Your task to perform on an android device: install app "TextNow: Call + Text Unlimited" Image 0: 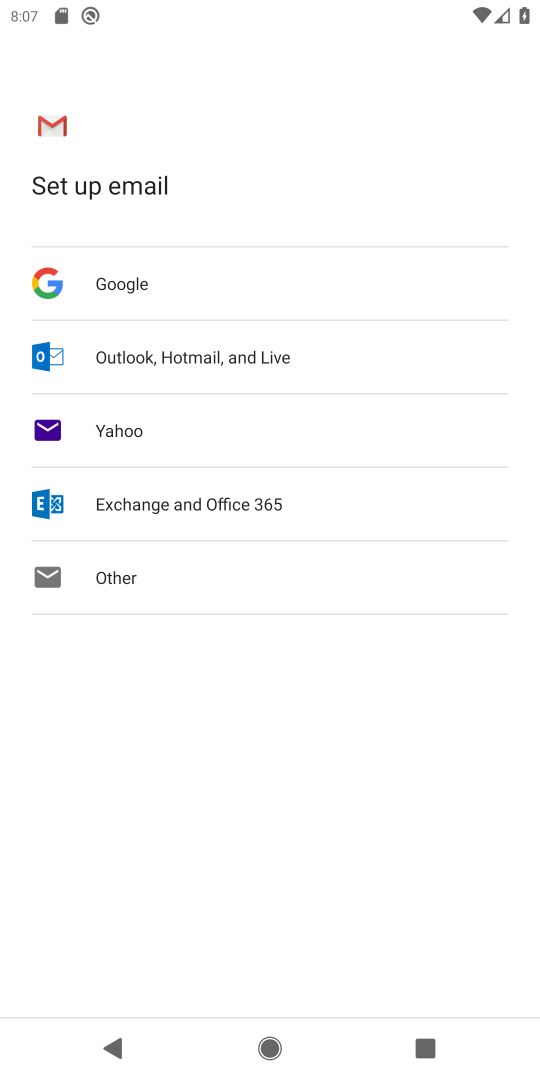
Step 0: press home button
Your task to perform on an android device: install app "TextNow: Call + Text Unlimited" Image 1: 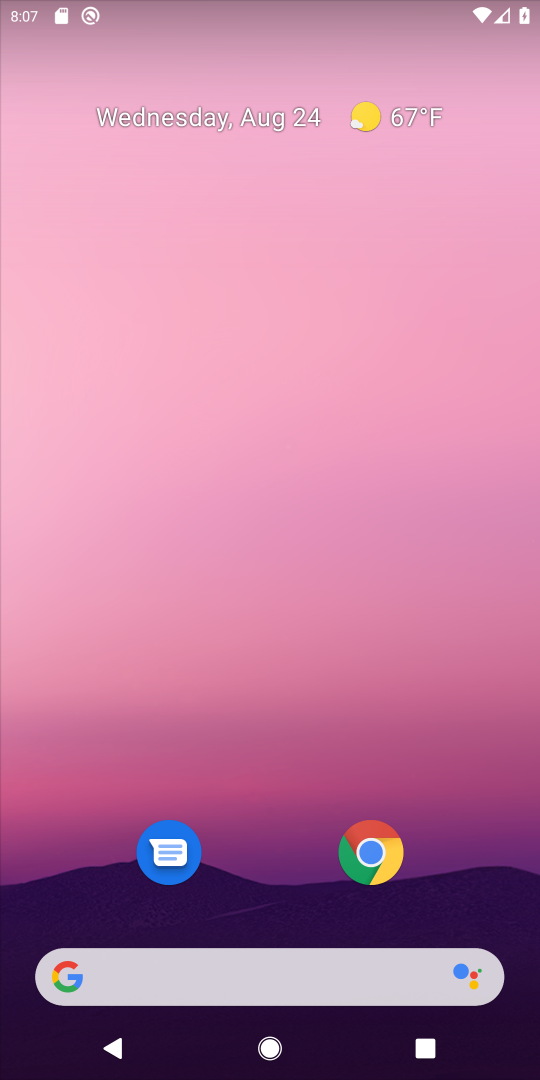
Step 1: drag from (212, 975) to (239, 20)
Your task to perform on an android device: install app "TextNow: Call + Text Unlimited" Image 2: 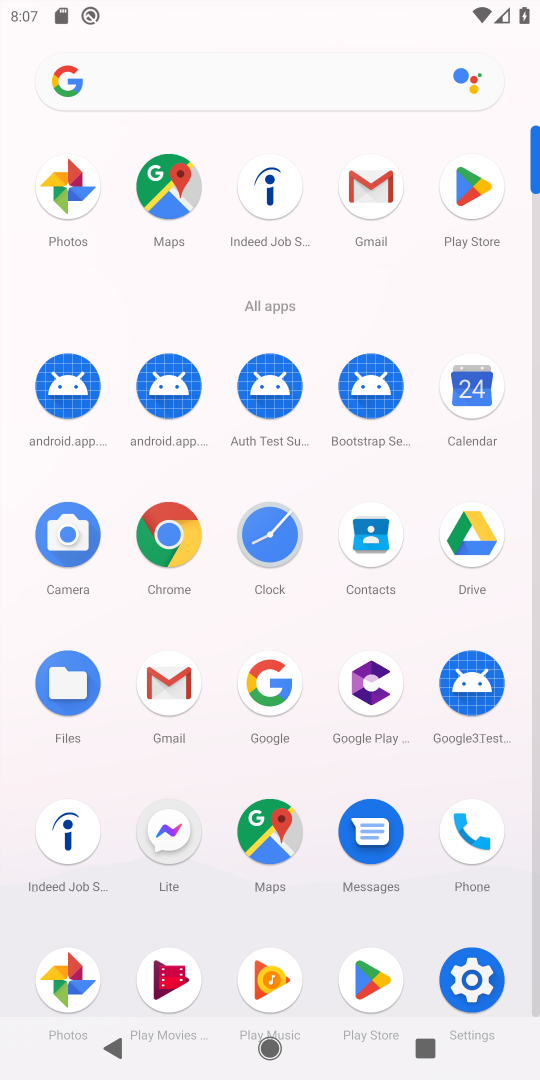
Step 2: click (475, 193)
Your task to perform on an android device: install app "TextNow: Call + Text Unlimited" Image 3: 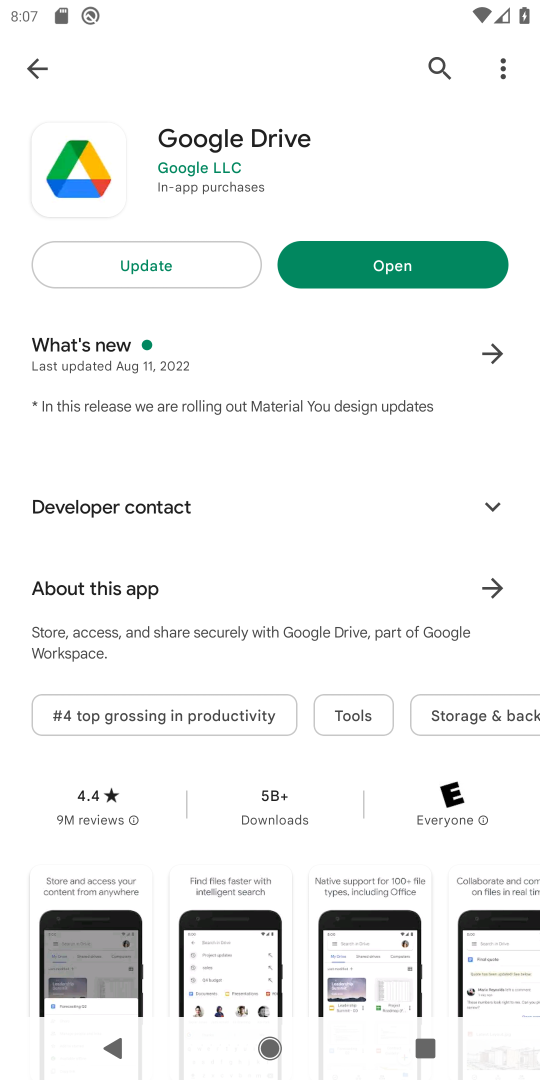
Step 3: press back button
Your task to perform on an android device: install app "TextNow: Call + Text Unlimited" Image 4: 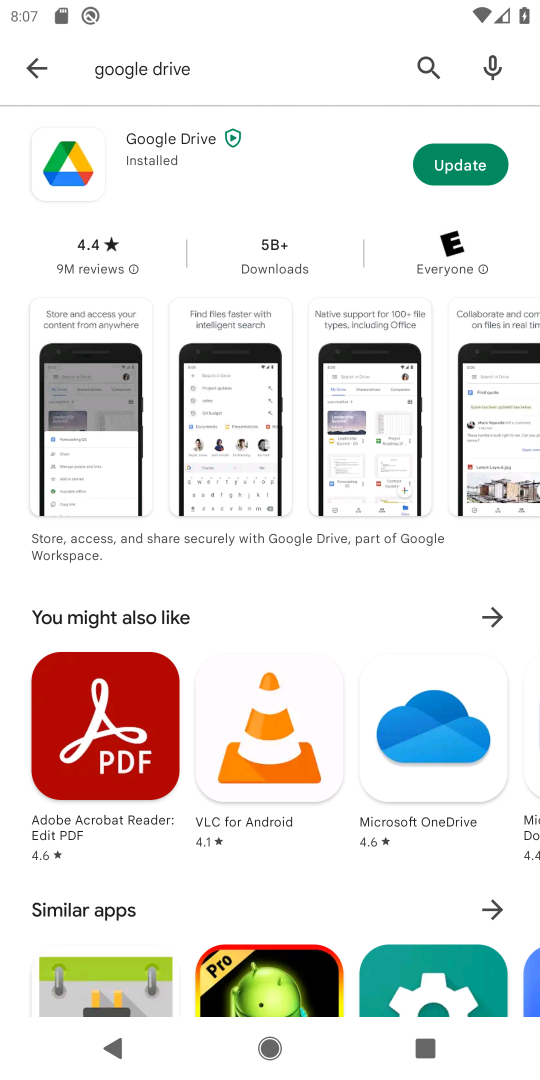
Step 4: press back button
Your task to perform on an android device: install app "TextNow: Call + Text Unlimited" Image 5: 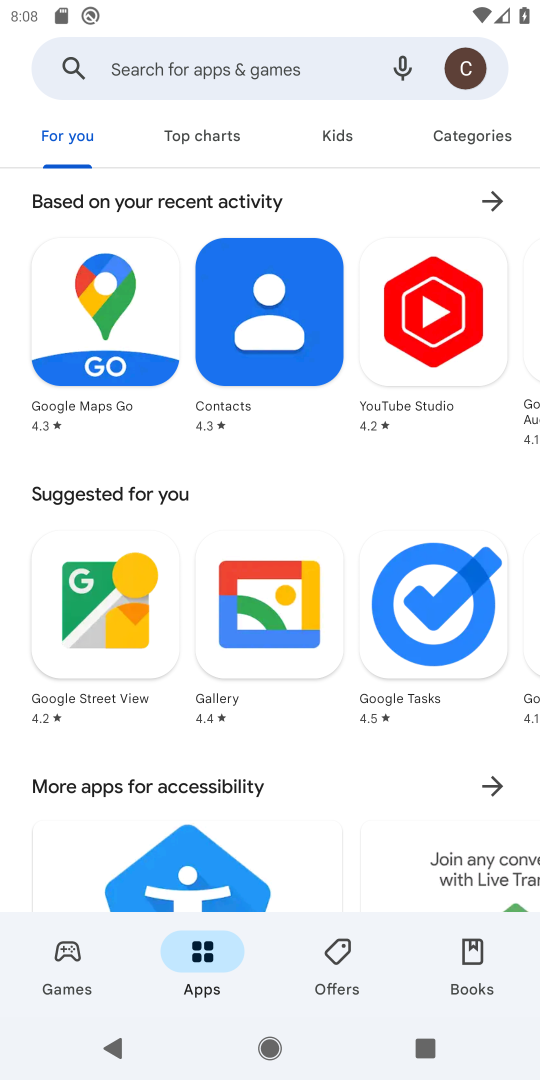
Step 5: click (248, 78)
Your task to perform on an android device: install app "TextNow: Call + Text Unlimited" Image 6: 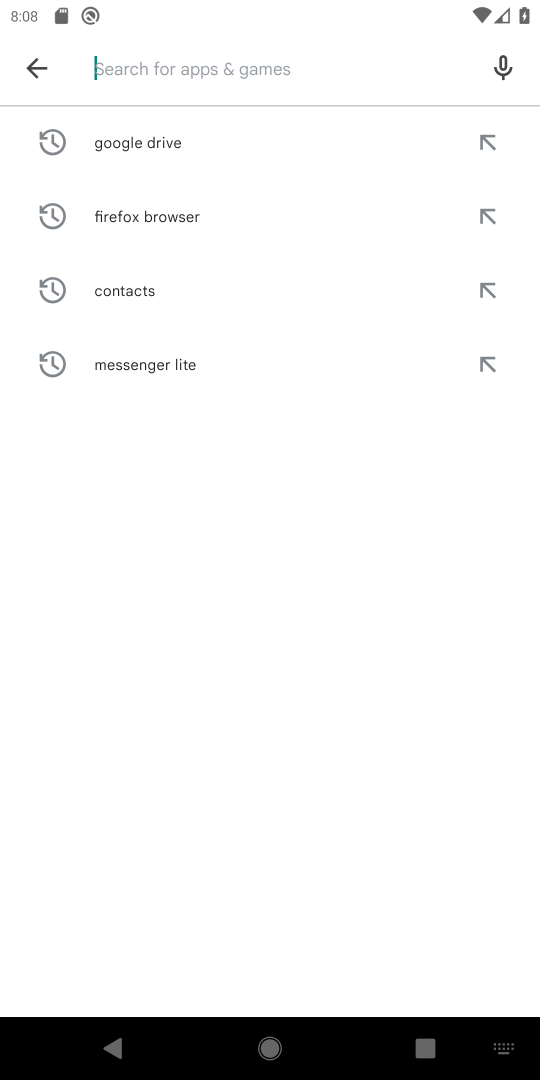
Step 6: type "TextNow: Call + Text Unlimited"
Your task to perform on an android device: install app "TextNow: Call + Text Unlimited" Image 7: 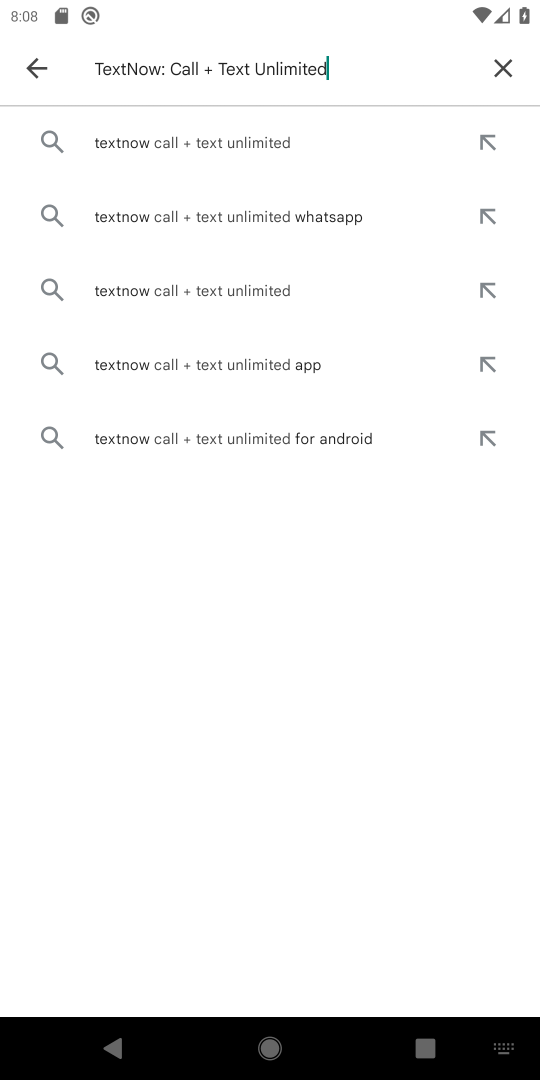
Step 7: click (226, 136)
Your task to perform on an android device: install app "TextNow: Call + Text Unlimited" Image 8: 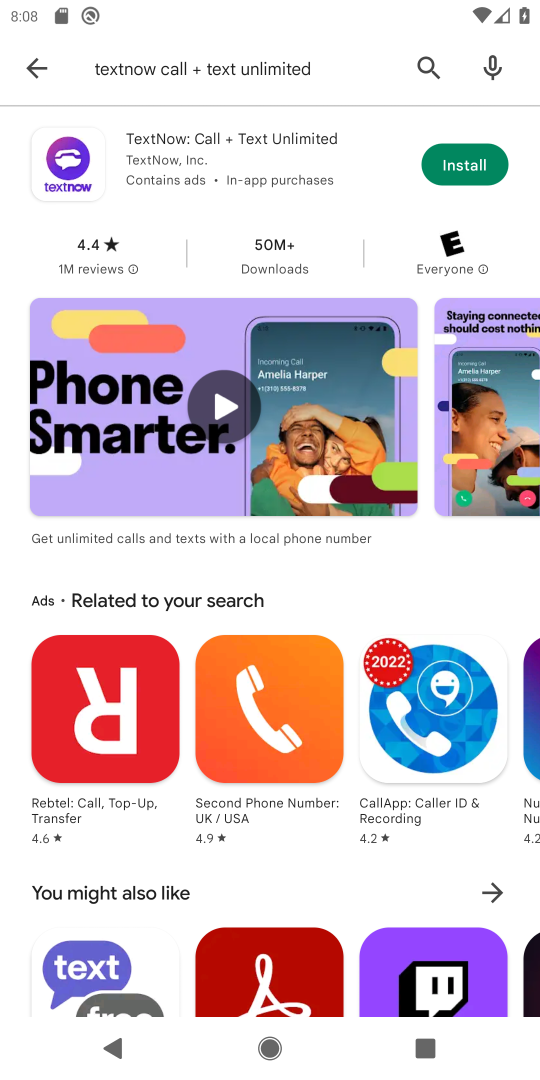
Step 8: click (463, 161)
Your task to perform on an android device: install app "TextNow: Call + Text Unlimited" Image 9: 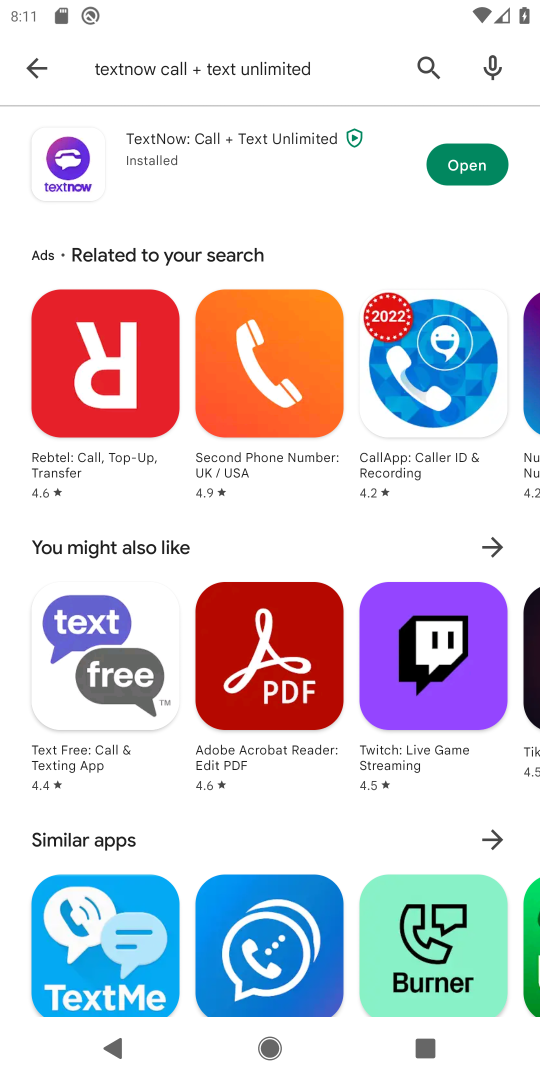
Step 9: task complete